Your task to perform on an android device: Open the map Image 0: 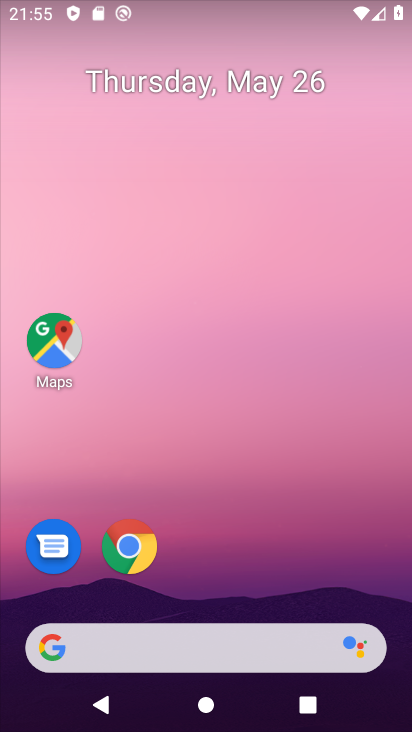
Step 0: click (58, 343)
Your task to perform on an android device: Open the map Image 1: 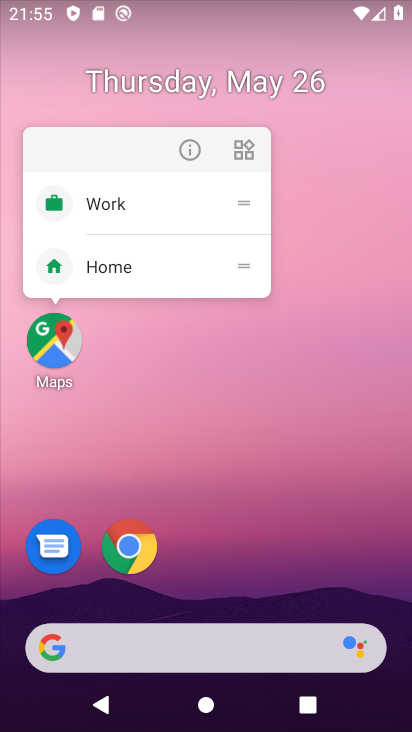
Step 1: click (49, 342)
Your task to perform on an android device: Open the map Image 2: 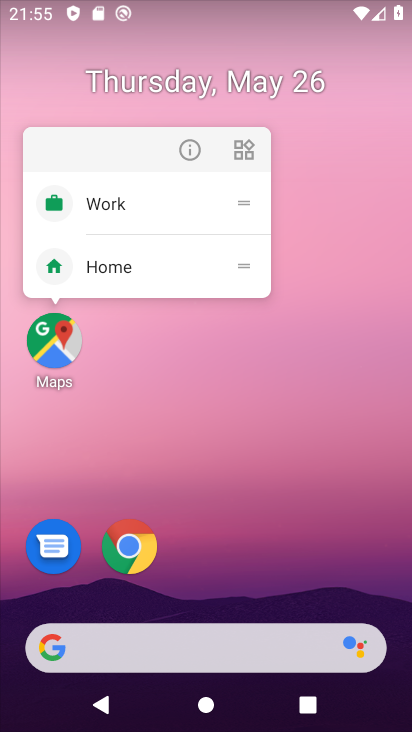
Step 2: click (49, 342)
Your task to perform on an android device: Open the map Image 3: 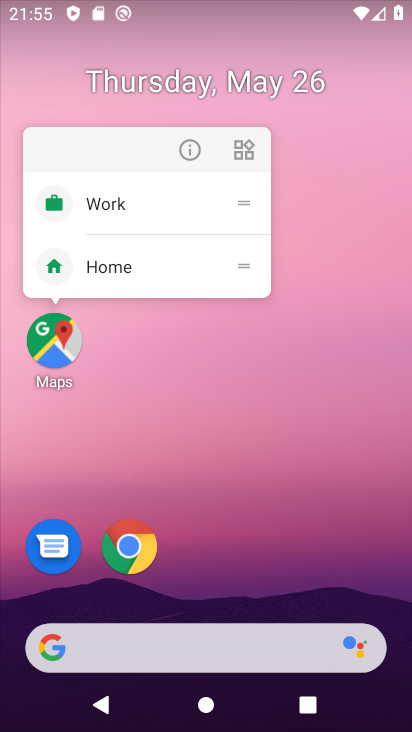
Step 3: click (51, 339)
Your task to perform on an android device: Open the map Image 4: 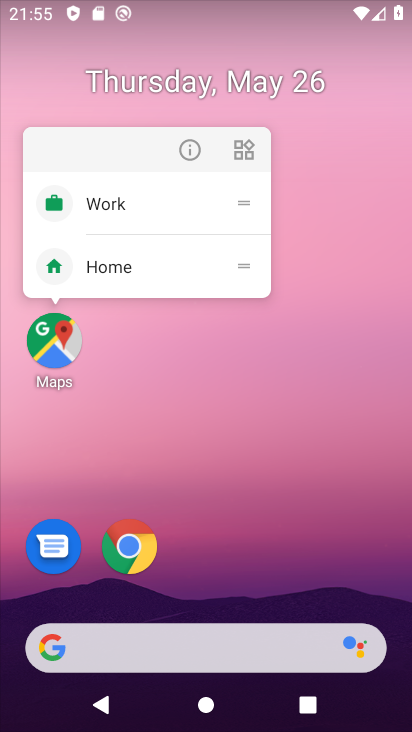
Step 4: click (55, 363)
Your task to perform on an android device: Open the map Image 5: 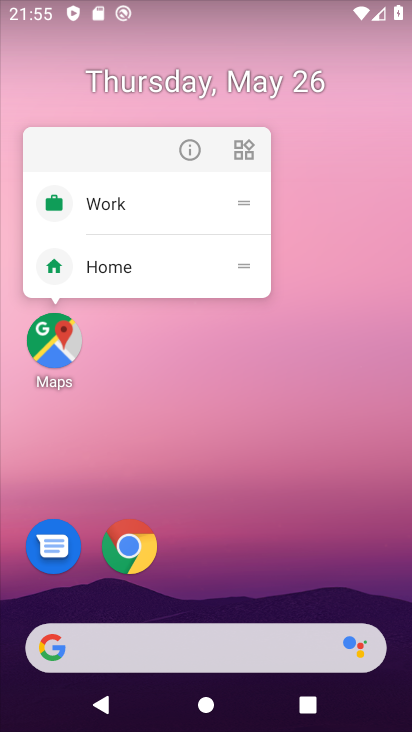
Step 5: click (55, 364)
Your task to perform on an android device: Open the map Image 6: 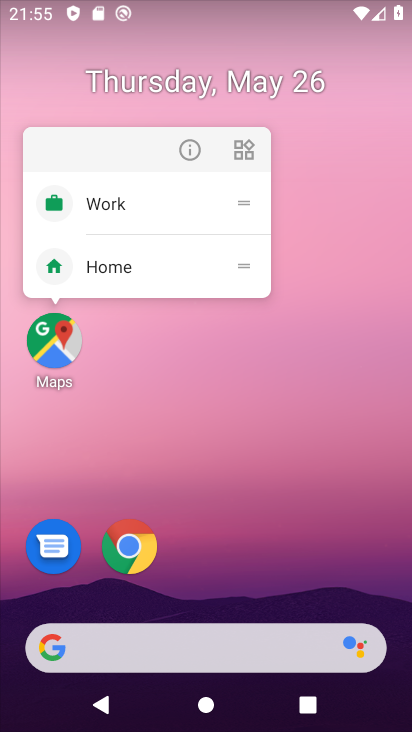
Step 6: click (55, 364)
Your task to perform on an android device: Open the map Image 7: 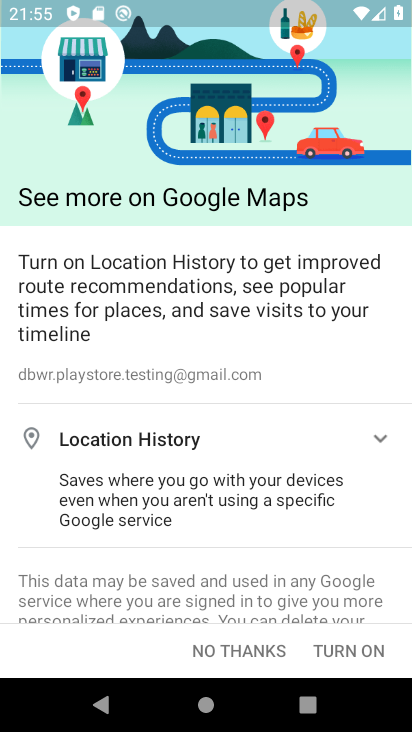
Step 7: click (263, 649)
Your task to perform on an android device: Open the map Image 8: 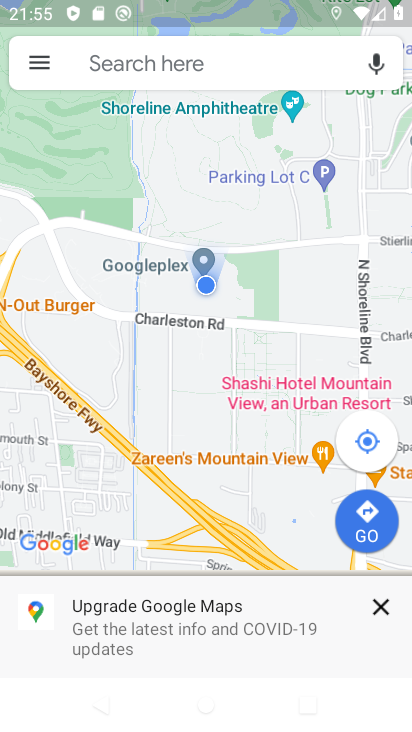
Step 8: task complete